Your task to perform on an android device: Go to sound settings Image 0: 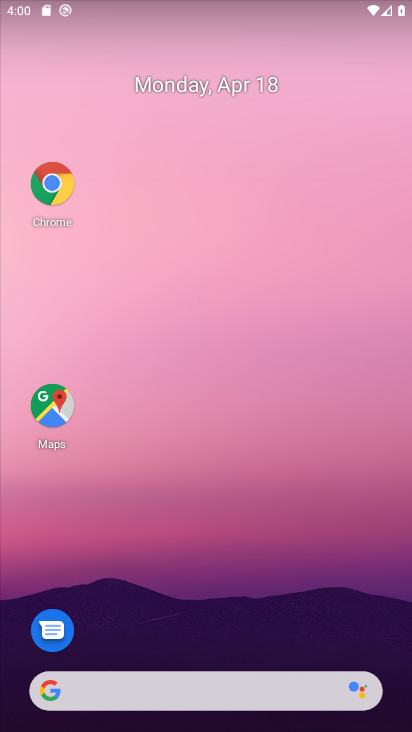
Step 0: drag from (227, 583) to (63, 3)
Your task to perform on an android device: Go to sound settings Image 1: 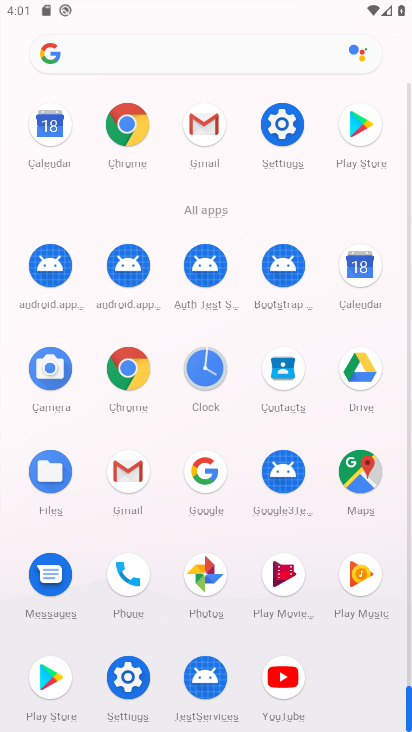
Step 1: click (281, 131)
Your task to perform on an android device: Go to sound settings Image 2: 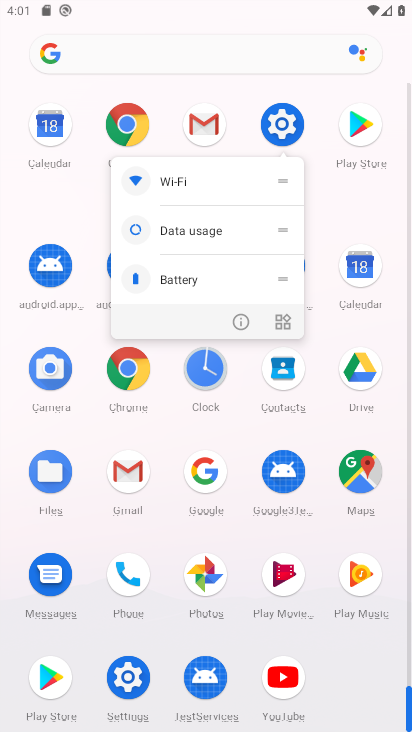
Step 2: click (281, 131)
Your task to perform on an android device: Go to sound settings Image 3: 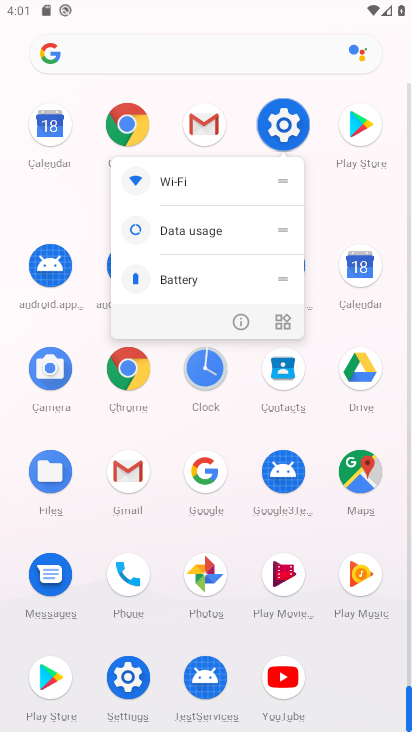
Step 3: click (283, 129)
Your task to perform on an android device: Go to sound settings Image 4: 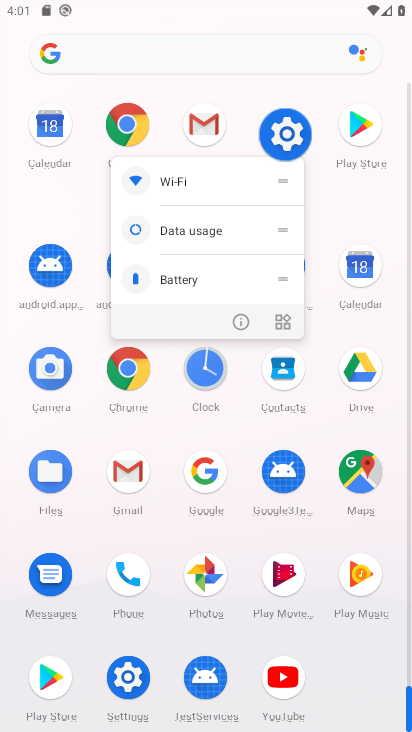
Step 4: click (285, 139)
Your task to perform on an android device: Go to sound settings Image 5: 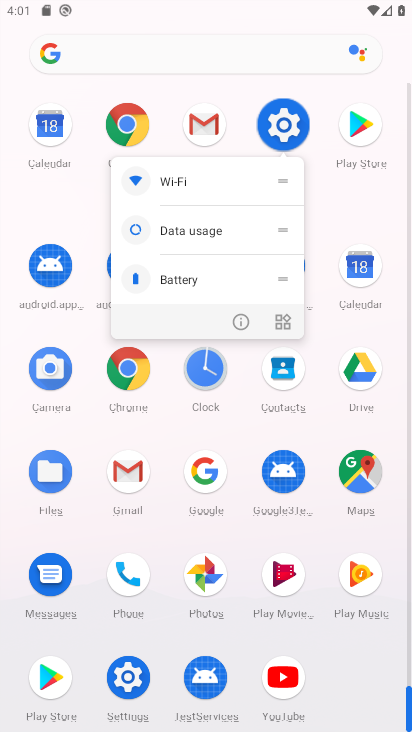
Step 5: click (283, 116)
Your task to perform on an android device: Go to sound settings Image 6: 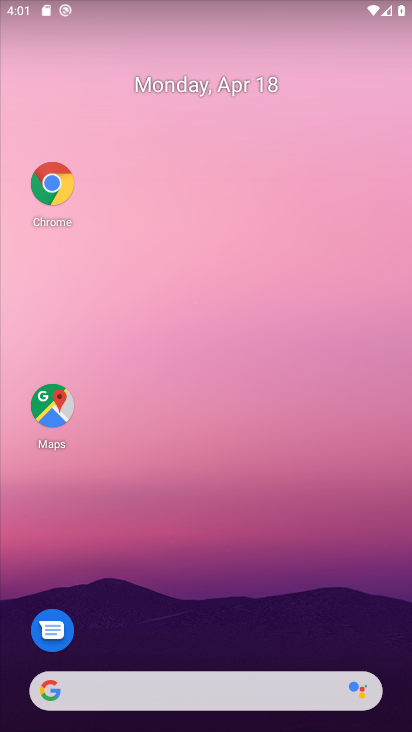
Step 6: drag from (297, 558) to (84, 17)
Your task to perform on an android device: Go to sound settings Image 7: 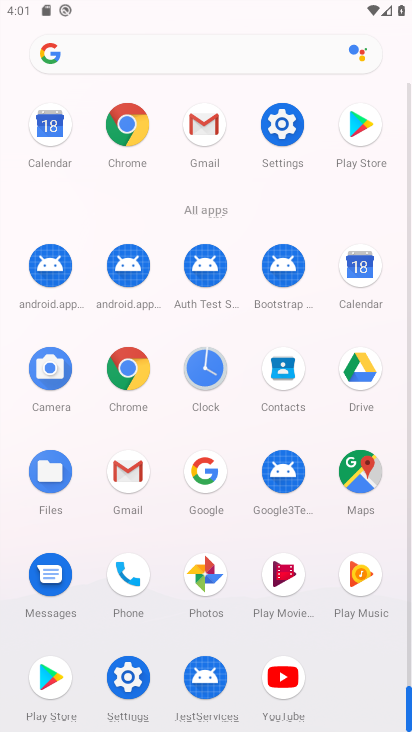
Step 7: click (270, 121)
Your task to perform on an android device: Go to sound settings Image 8: 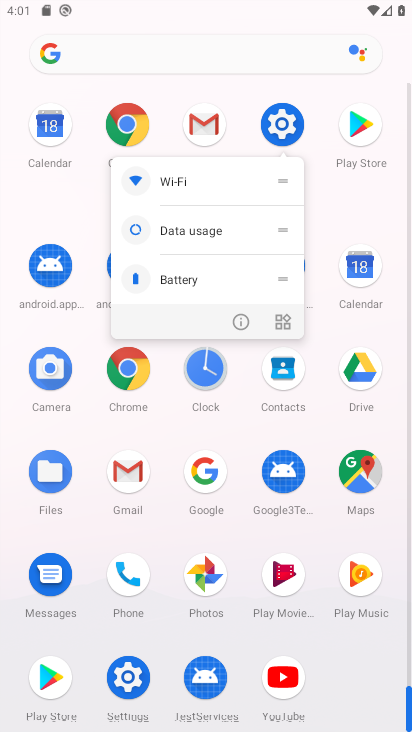
Step 8: click (279, 115)
Your task to perform on an android device: Go to sound settings Image 9: 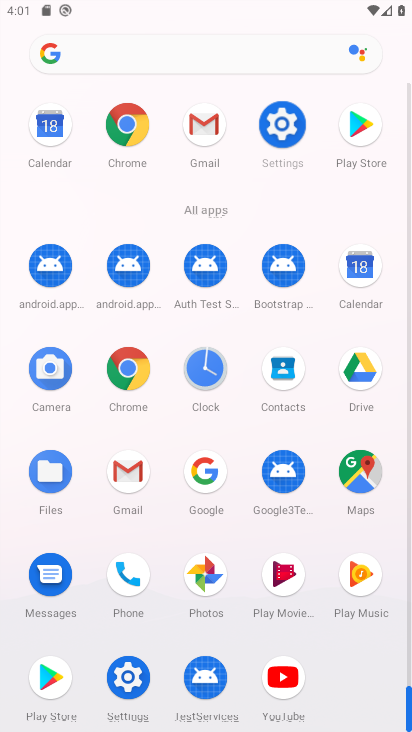
Step 9: drag from (279, 115) to (277, 153)
Your task to perform on an android device: Go to sound settings Image 10: 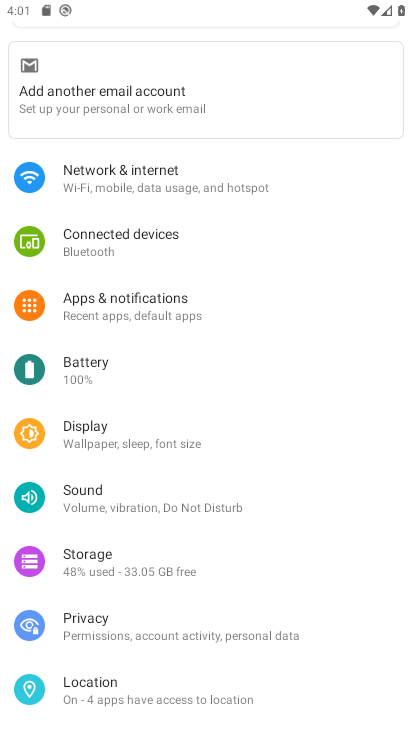
Step 10: click (79, 498)
Your task to perform on an android device: Go to sound settings Image 11: 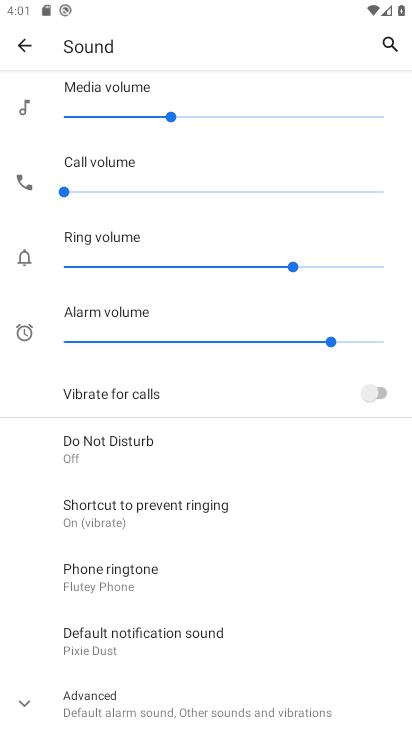
Step 11: task complete